Your task to perform on an android device: check data usage Image 0: 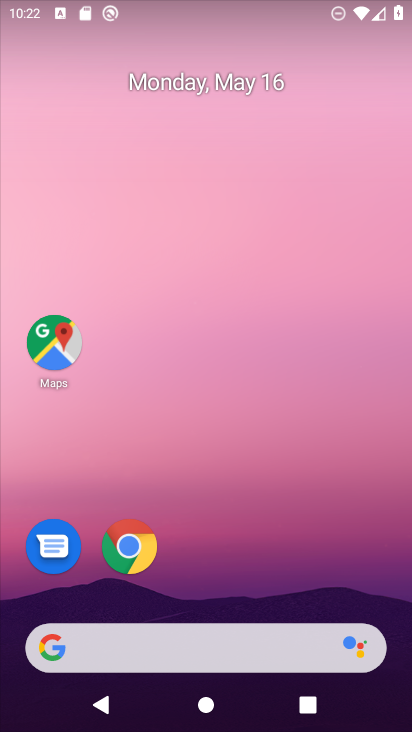
Step 0: drag from (223, 616) to (248, 156)
Your task to perform on an android device: check data usage Image 1: 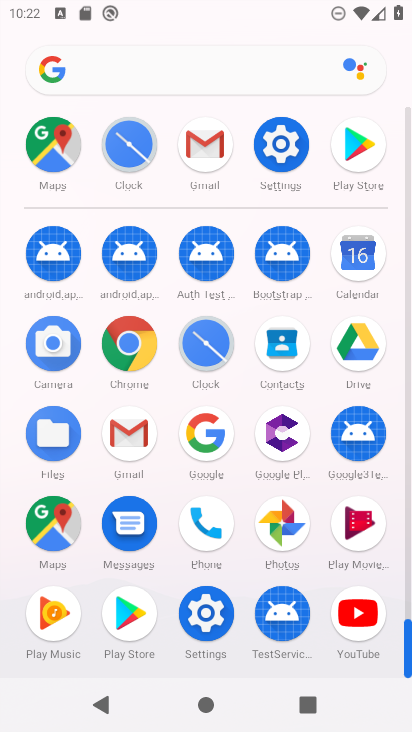
Step 1: click (287, 162)
Your task to perform on an android device: check data usage Image 2: 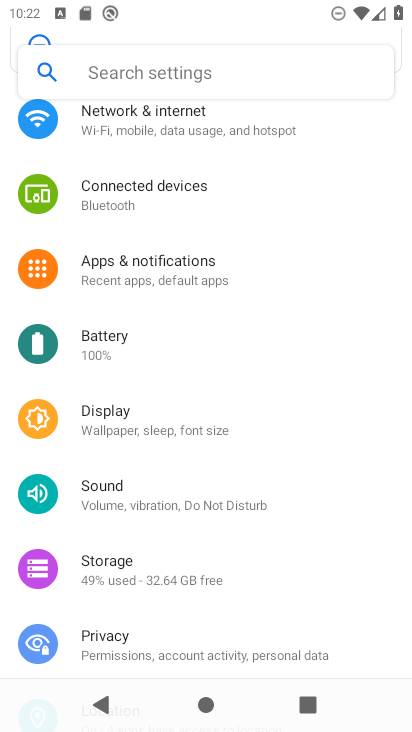
Step 2: click (190, 134)
Your task to perform on an android device: check data usage Image 3: 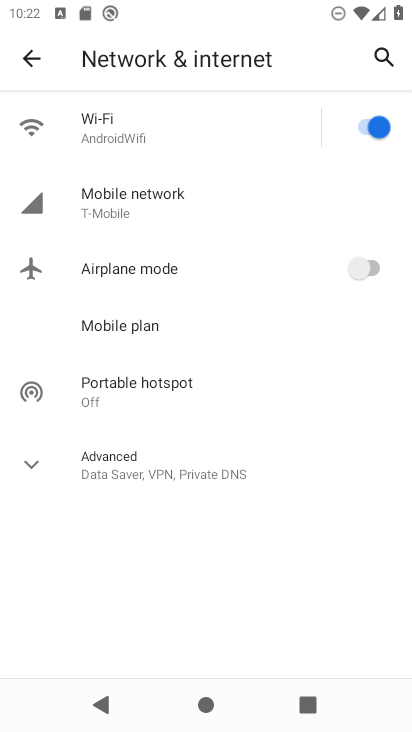
Step 3: click (187, 205)
Your task to perform on an android device: check data usage Image 4: 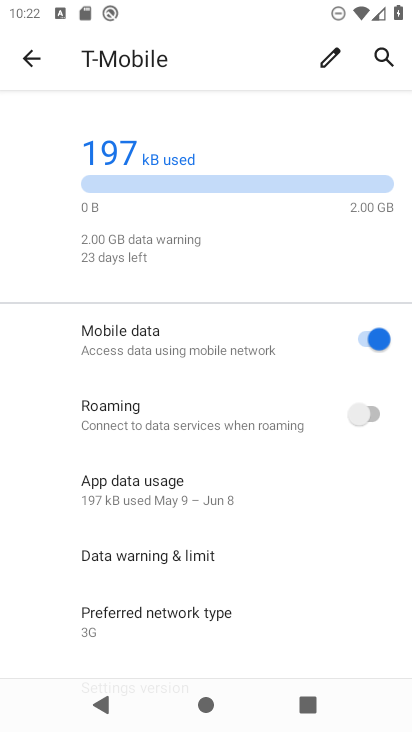
Step 4: task complete